Your task to perform on an android device: Open Google Chrome and click the shortcut for Amazon.com Image 0: 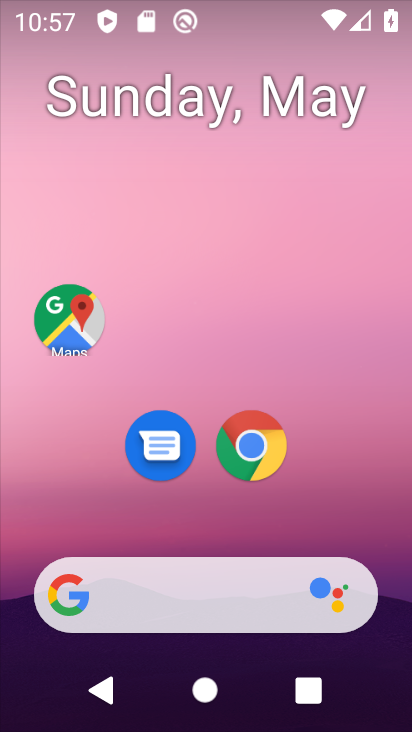
Step 0: click (258, 455)
Your task to perform on an android device: Open Google Chrome and click the shortcut for Amazon.com Image 1: 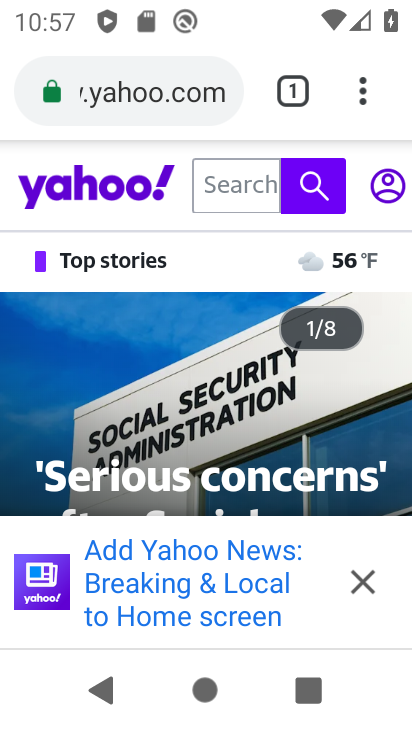
Step 1: click (294, 90)
Your task to perform on an android device: Open Google Chrome and click the shortcut for Amazon.com Image 2: 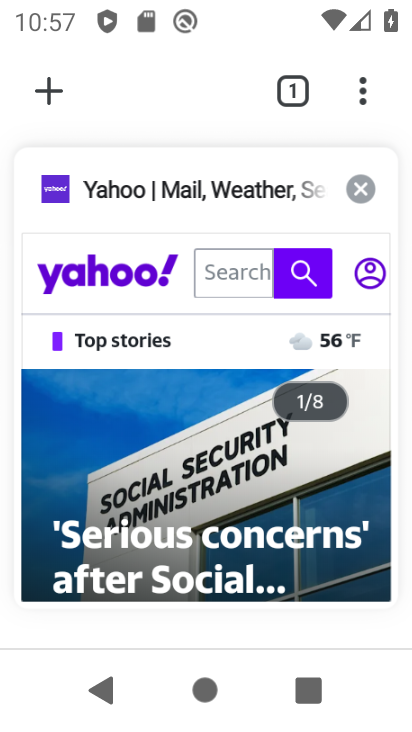
Step 2: click (36, 85)
Your task to perform on an android device: Open Google Chrome and click the shortcut for Amazon.com Image 3: 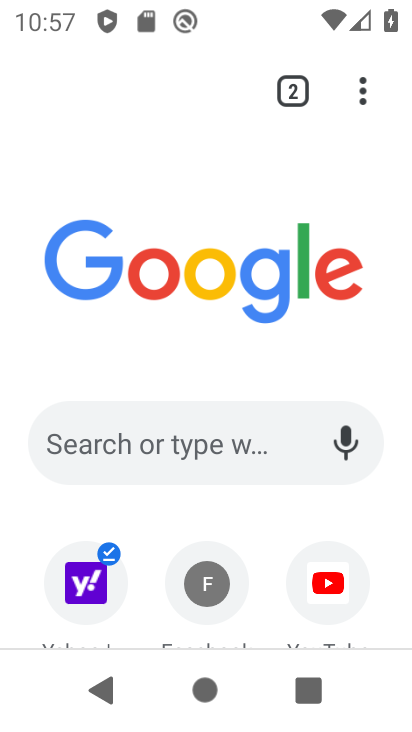
Step 3: drag from (265, 507) to (243, 205)
Your task to perform on an android device: Open Google Chrome and click the shortcut for Amazon.com Image 4: 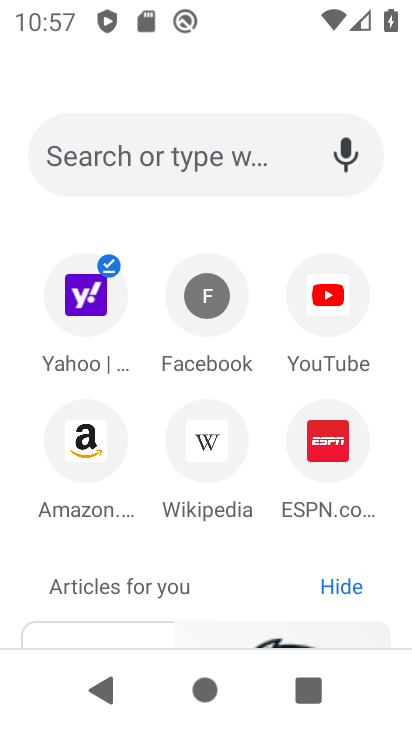
Step 4: click (84, 442)
Your task to perform on an android device: Open Google Chrome and click the shortcut for Amazon.com Image 5: 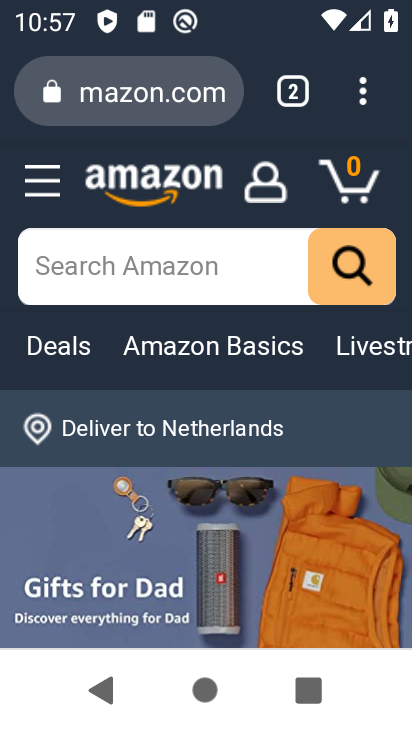
Step 5: task complete